Your task to perform on an android device: set the stopwatch Image 0: 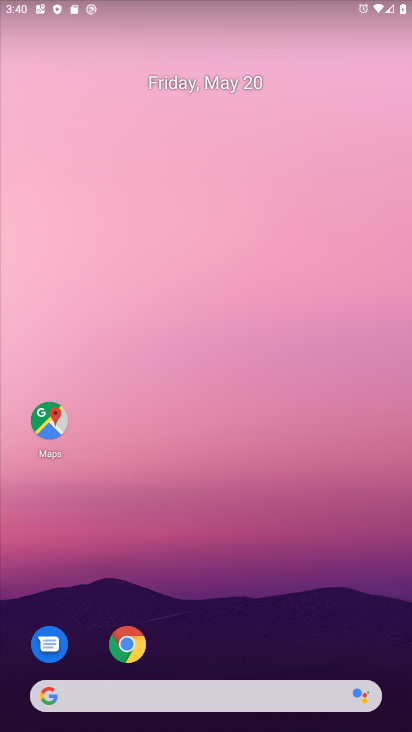
Step 0: drag from (324, 642) to (314, 5)
Your task to perform on an android device: set the stopwatch Image 1: 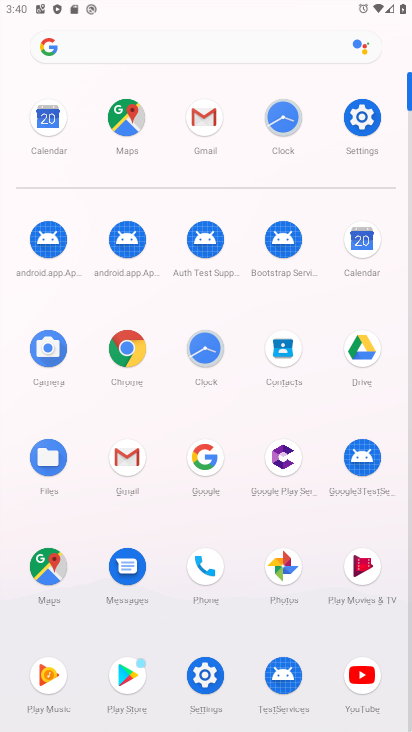
Step 1: click (293, 114)
Your task to perform on an android device: set the stopwatch Image 2: 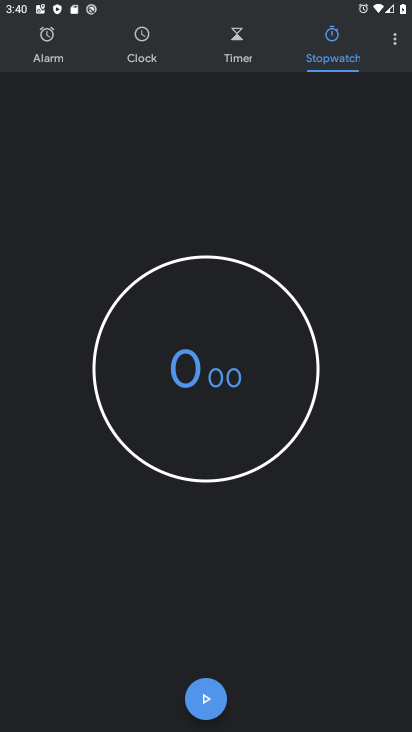
Step 2: task complete